Your task to perform on an android device: change timer sound Image 0: 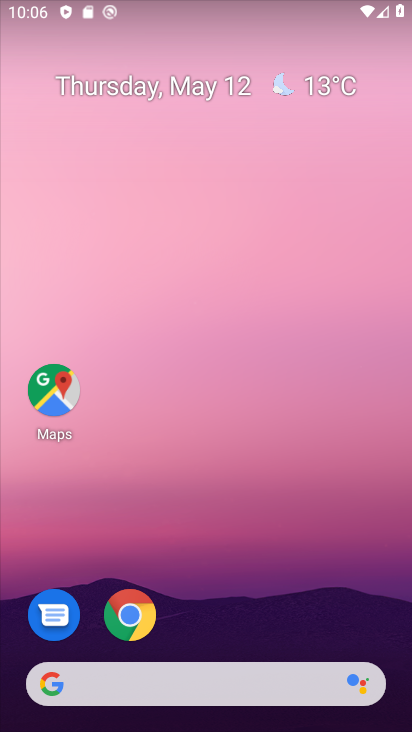
Step 0: drag from (243, 533) to (255, 100)
Your task to perform on an android device: change timer sound Image 1: 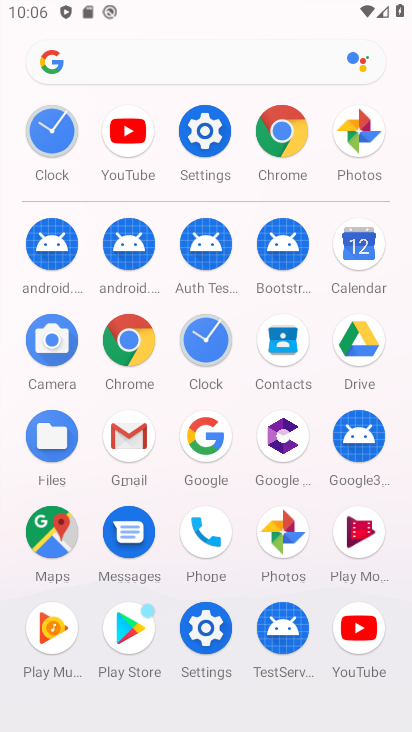
Step 1: click (202, 138)
Your task to perform on an android device: change timer sound Image 2: 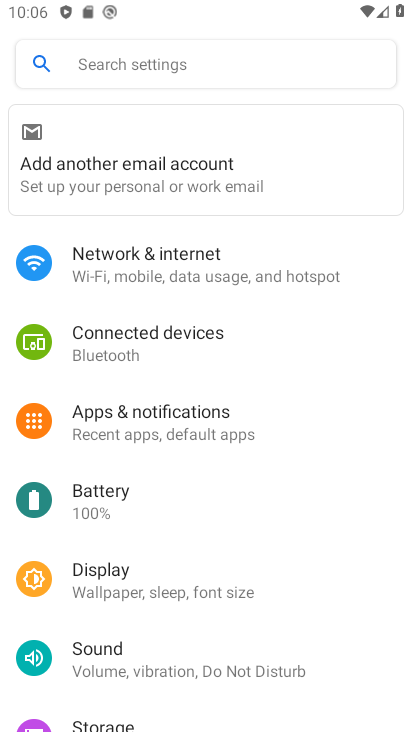
Step 2: click (138, 651)
Your task to perform on an android device: change timer sound Image 3: 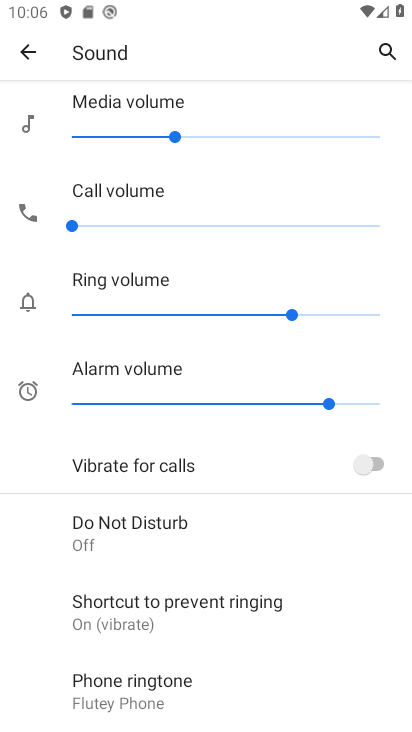
Step 3: task complete